Your task to perform on an android device: Open calendar and show me the third week of next month Image 0: 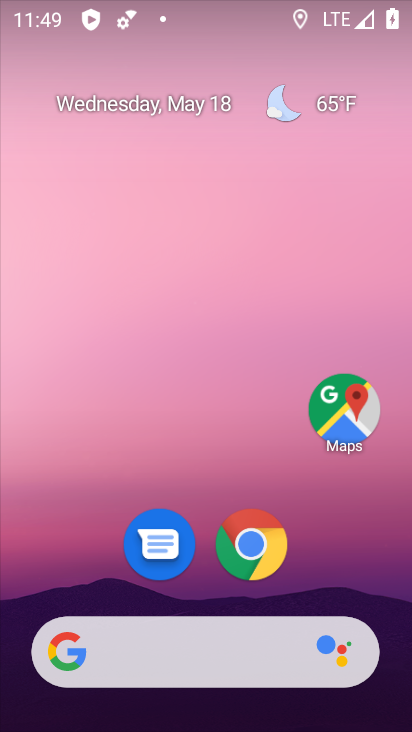
Step 0: drag from (335, 567) to (328, 122)
Your task to perform on an android device: Open calendar and show me the third week of next month Image 1: 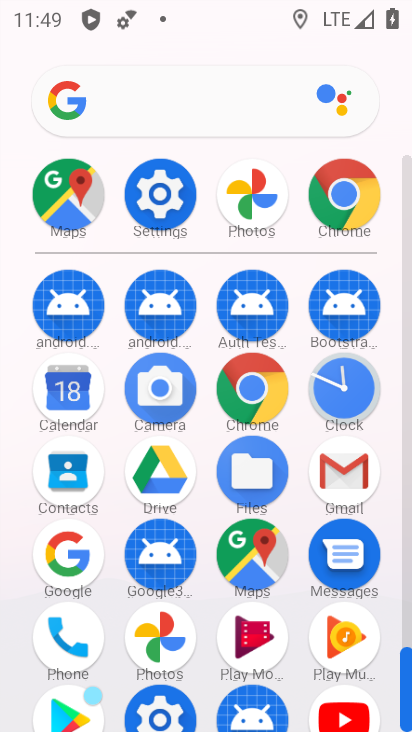
Step 1: click (61, 400)
Your task to perform on an android device: Open calendar and show me the third week of next month Image 2: 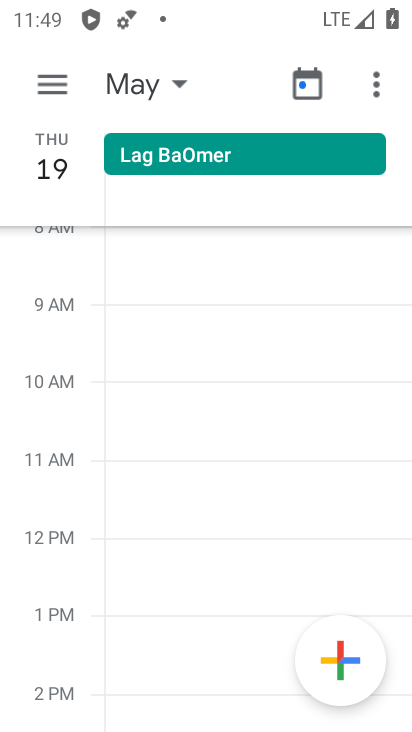
Step 2: click (188, 83)
Your task to perform on an android device: Open calendar and show me the third week of next month Image 3: 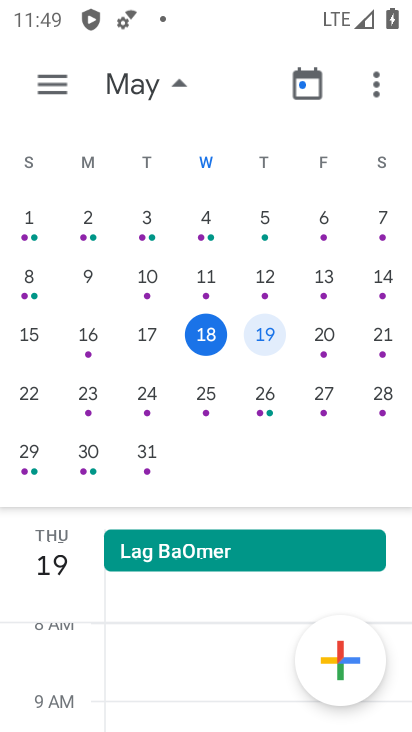
Step 3: drag from (361, 313) to (21, 310)
Your task to perform on an android device: Open calendar and show me the third week of next month Image 4: 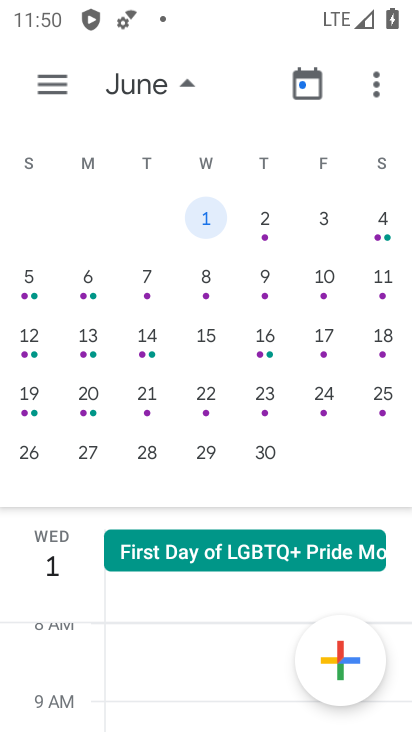
Step 4: click (147, 337)
Your task to perform on an android device: Open calendar and show me the third week of next month Image 5: 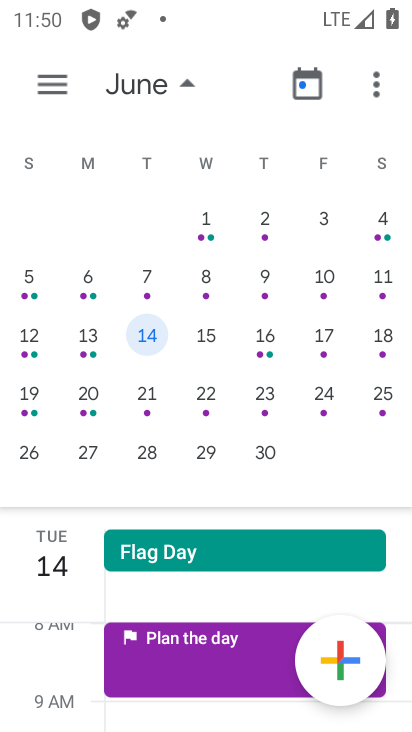
Step 5: task complete